Your task to perform on an android device: turn vacation reply on in the gmail app Image 0: 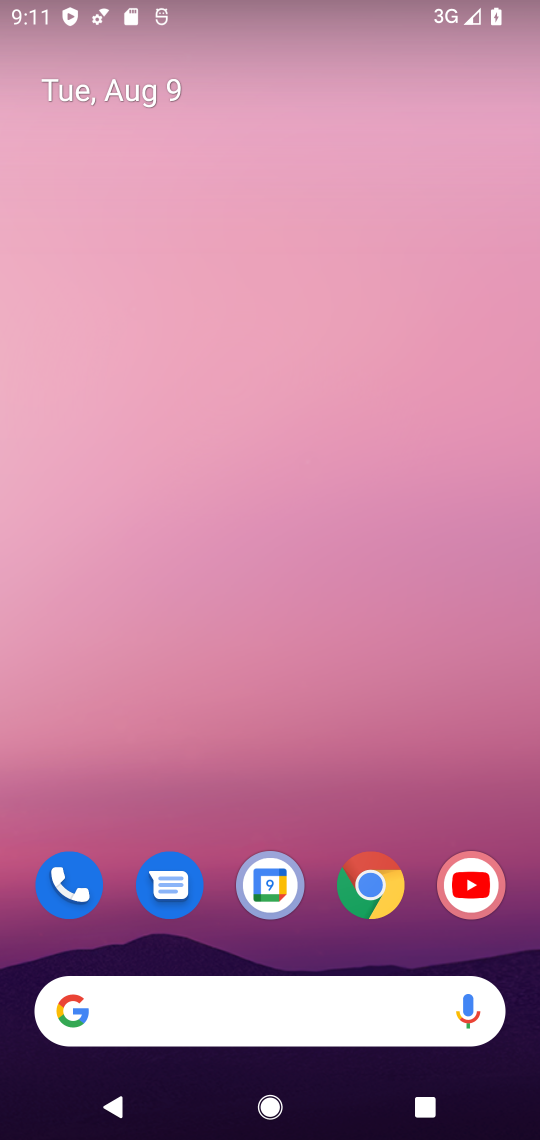
Step 0: press home button
Your task to perform on an android device: turn vacation reply on in the gmail app Image 1: 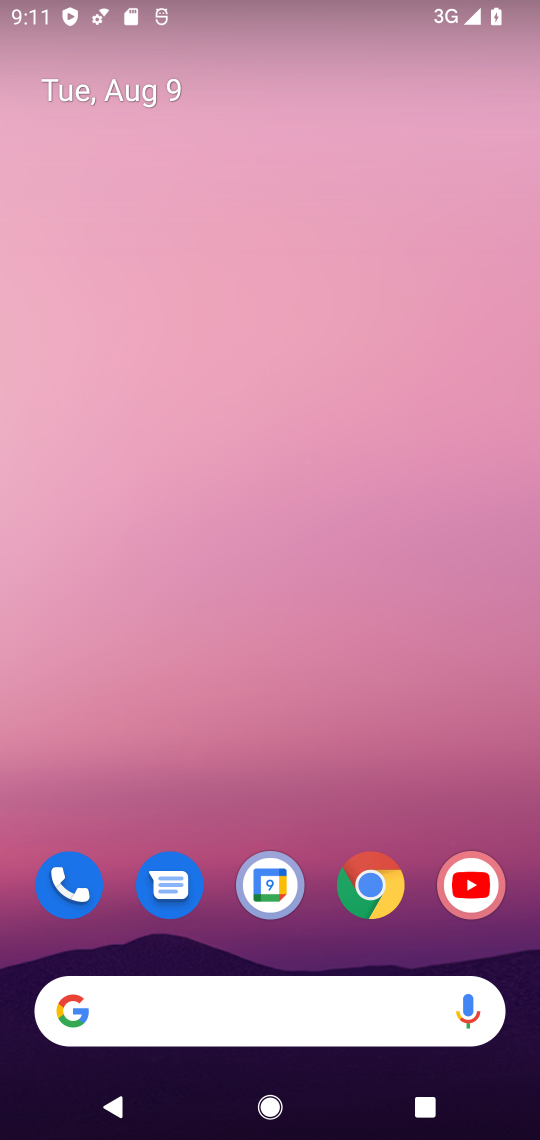
Step 1: drag from (313, 831) to (316, 129)
Your task to perform on an android device: turn vacation reply on in the gmail app Image 2: 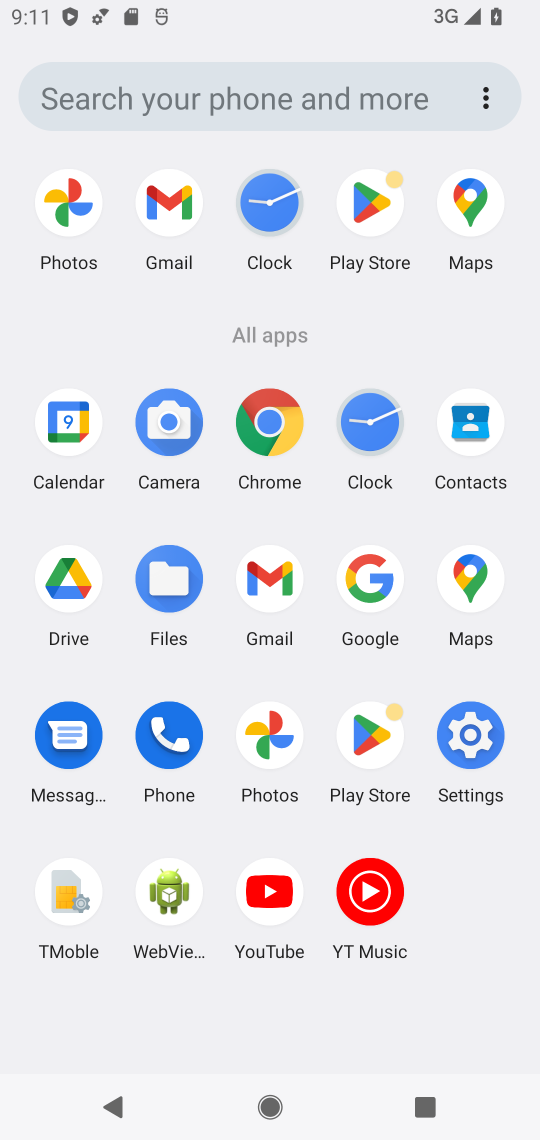
Step 2: click (273, 559)
Your task to perform on an android device: turn vacation reply on in the gmail app Image 3: 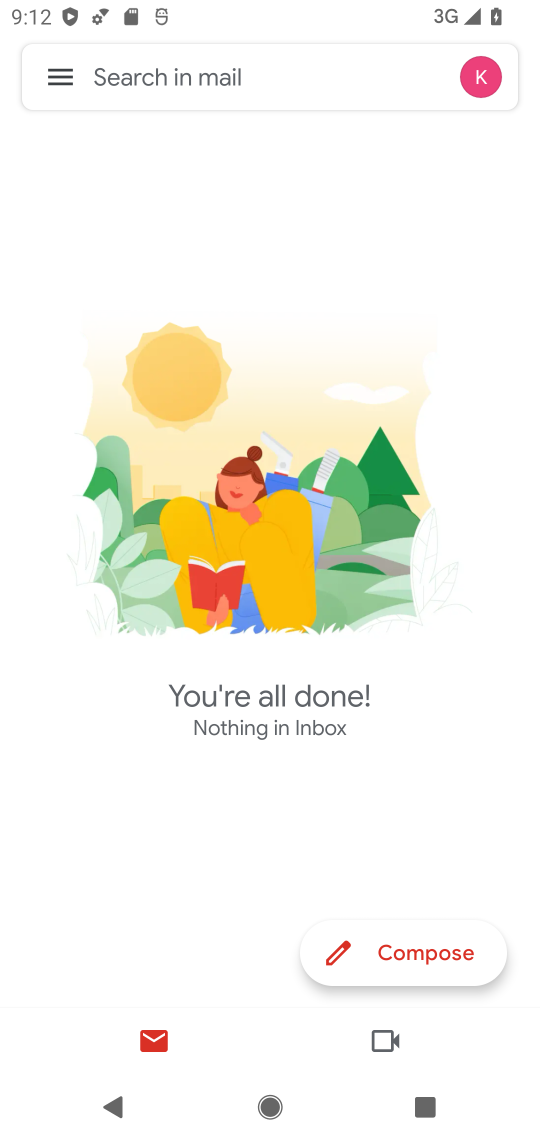
Step 3: click (45, 86)
Your task to perform on an android device: turn vacation reply on in the gmail app Image 4: 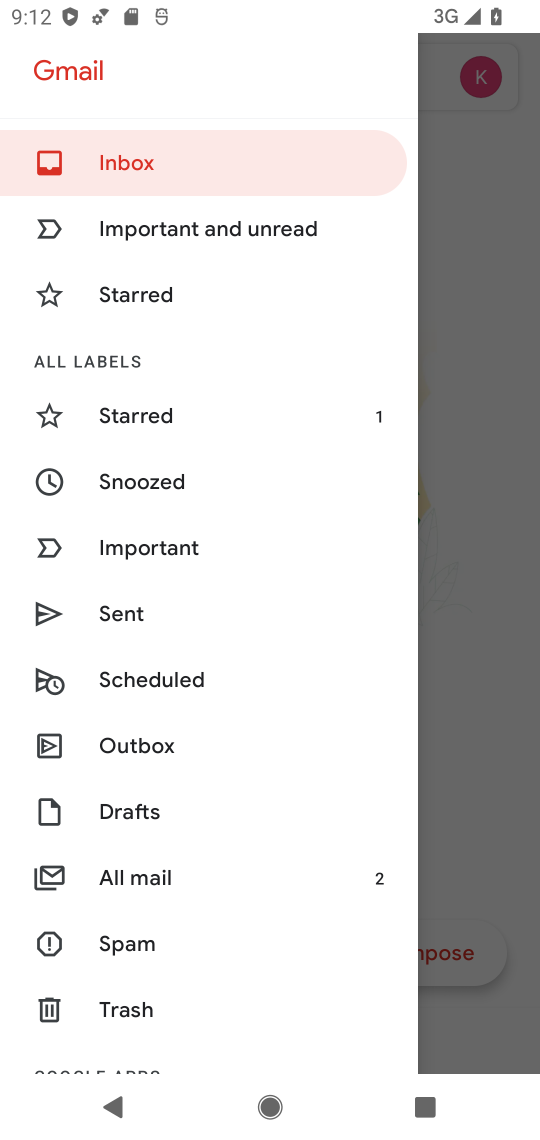
Step 4: drag from (182, 983) to (276, 259)
Your task to perform on an android device: turn vacation reply on in the gmail app Image 5: 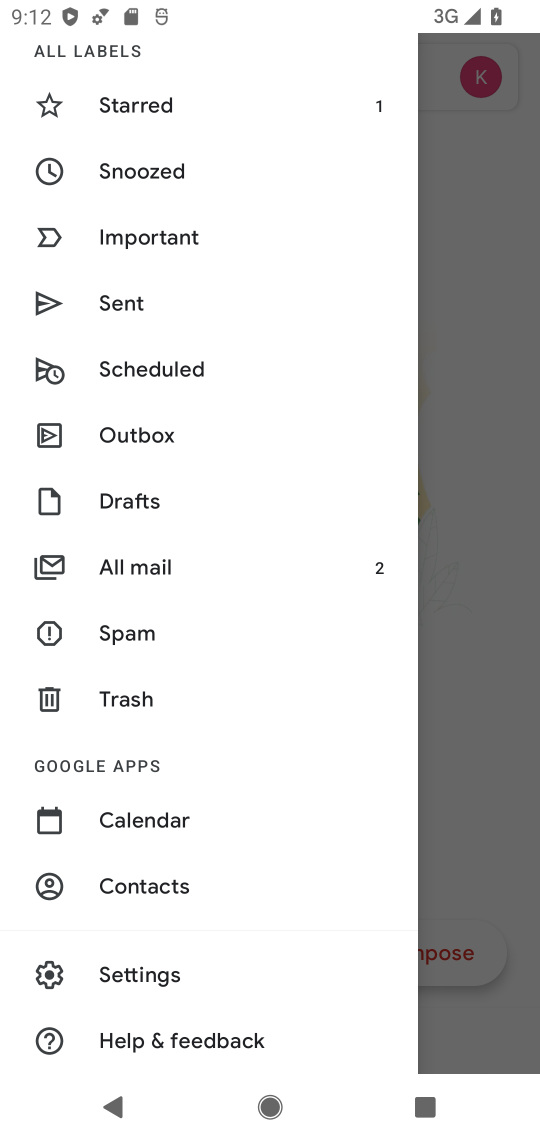
Step 5: click (179, 964)
Your task to perform on an android device: turn vacation reply on in the gmail app Image 6: 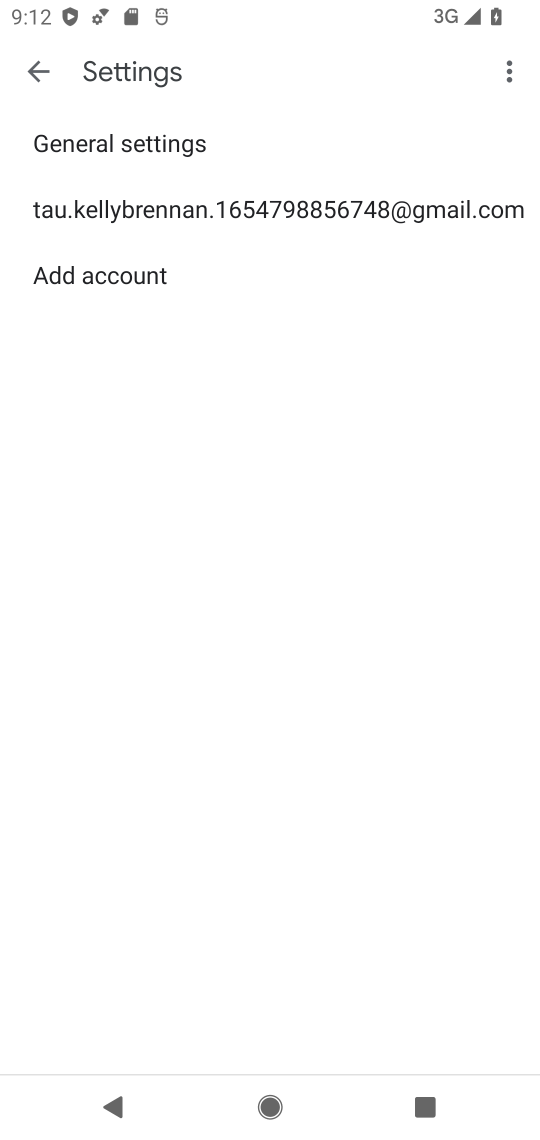
Step 6: click (175, 209)
Your task to perform on an android device: turn vacation reply on in the gmail app Image 7: 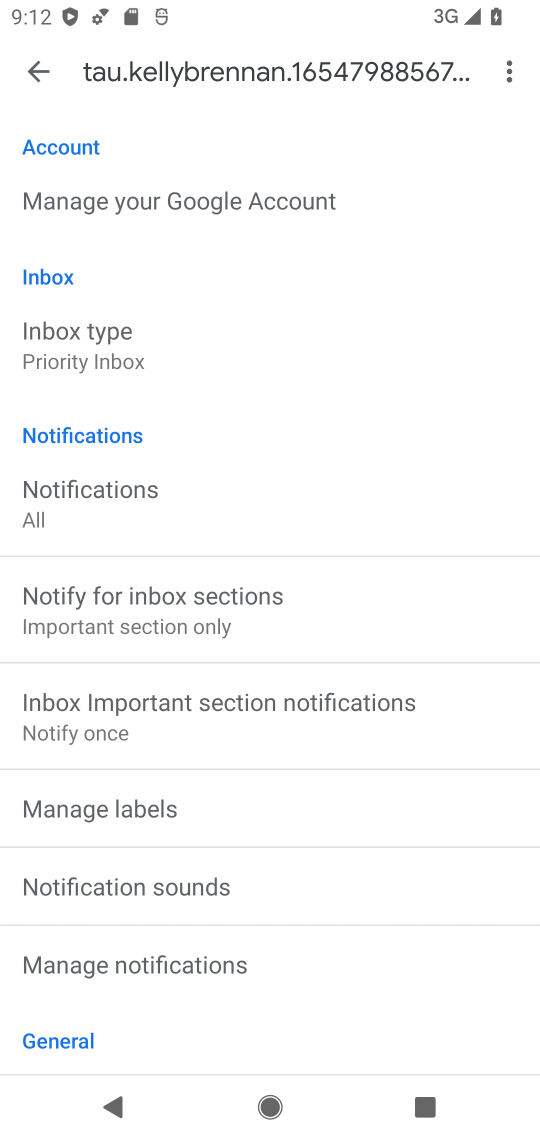
Step 7: drag from (153, 916) to (219, 68)
Your task to perform on an android device: turn vacation reply on in the gmail app Image 8: 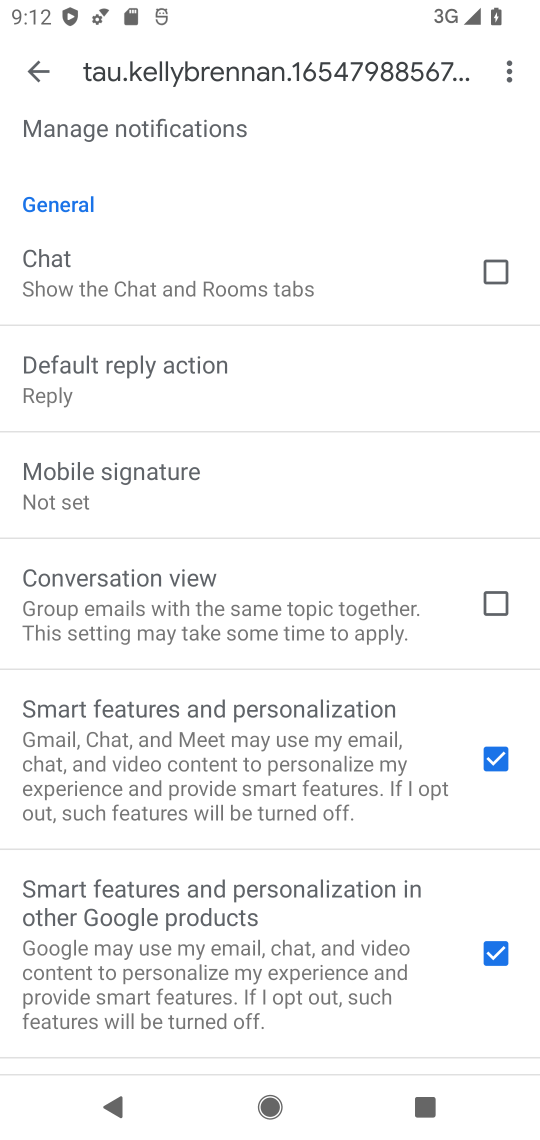
Step 8: drag from (222, 1004) to (322, 219)
Your task to perform on an android device: turn vacation reply on in the gmail app Image 9: 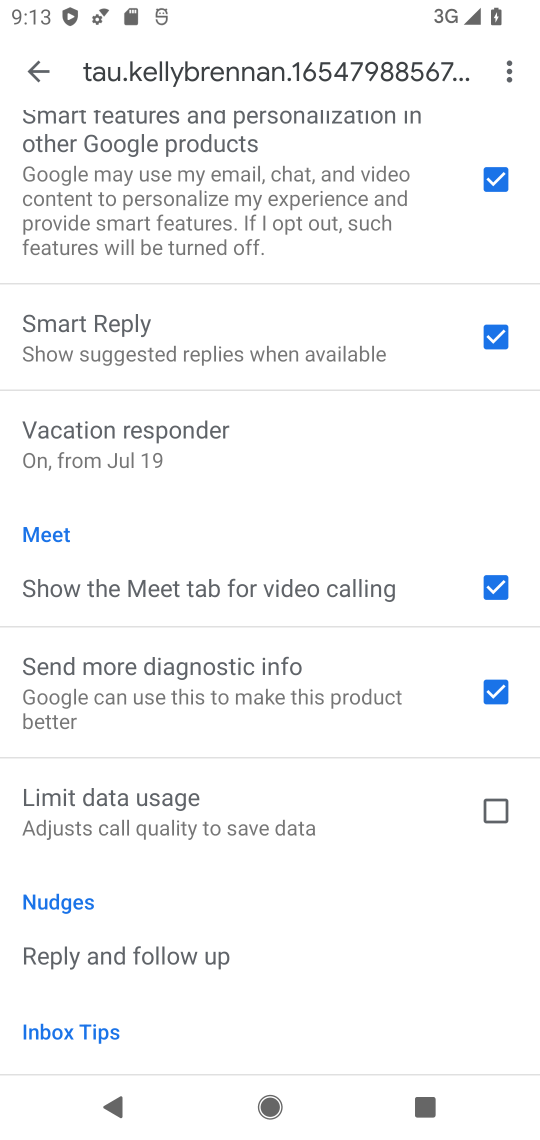
Step 9: click (225, 431)
Your task to perform on an android device: turn vacation reply on in the gmail app Image 10: 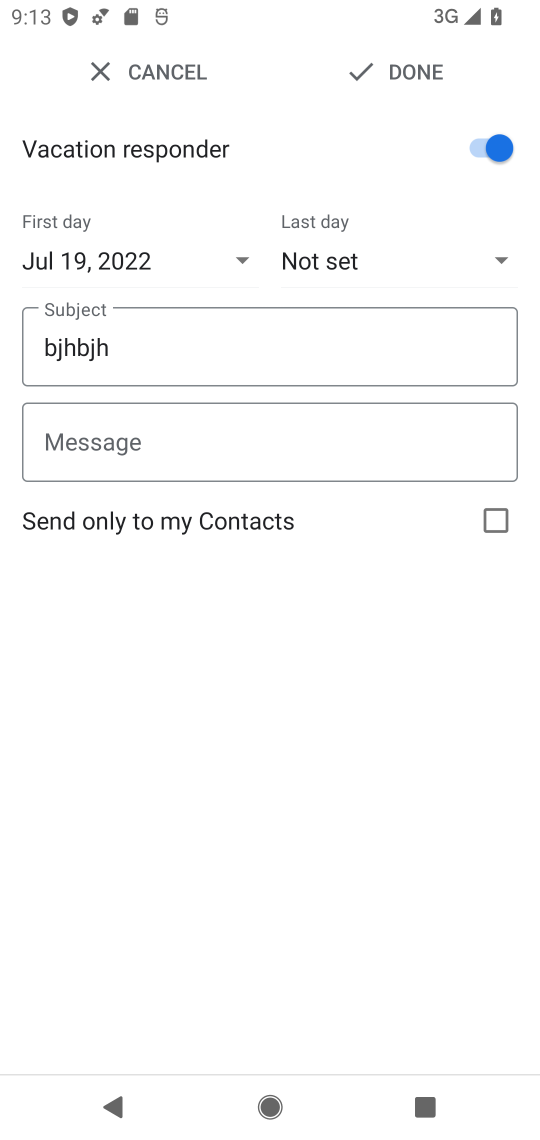
Step 10: task complete